Your task to perform on an android device: check the backup settings in the google photos Image 0: 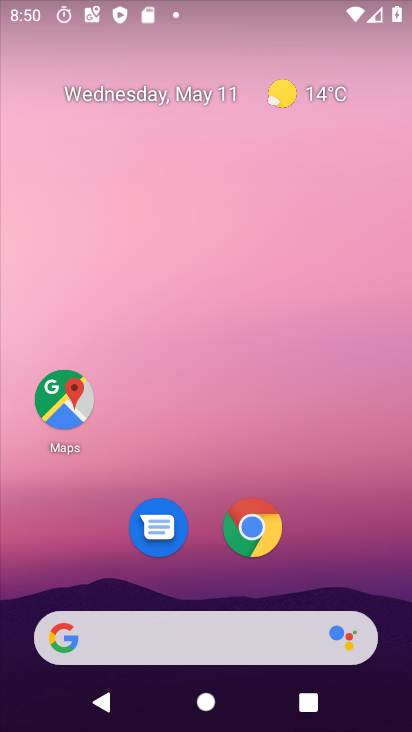
Step 0: drag from (250, 588) to (257, 128)
Your task to perform on an android device: check the backup settings in the google photos Image 1: 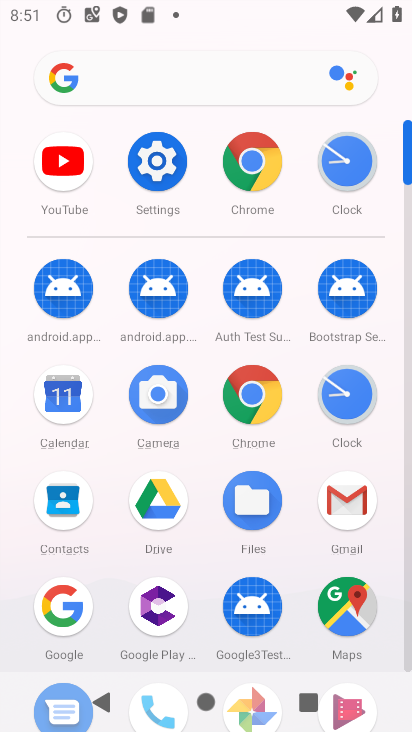
Step 1: drag from (205, 528) to (223, 237)
Your task to perform on an android device: check the backup settings in the google photos Image 2: 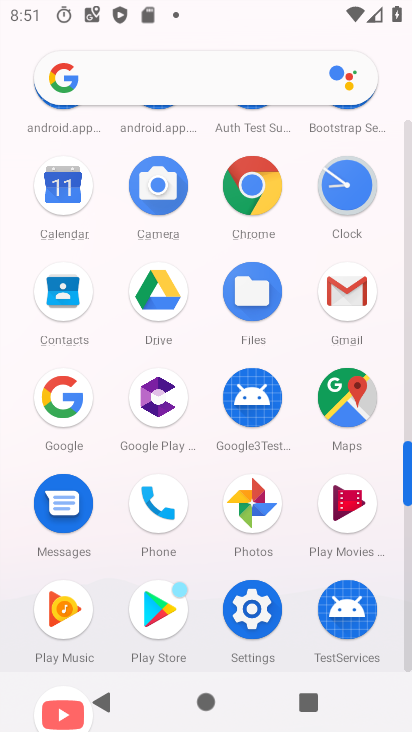
Step 2: drag from (270, 438) to (282, 290)
Your task to perform on an android device: check the backup settings in the google photos Image 3: 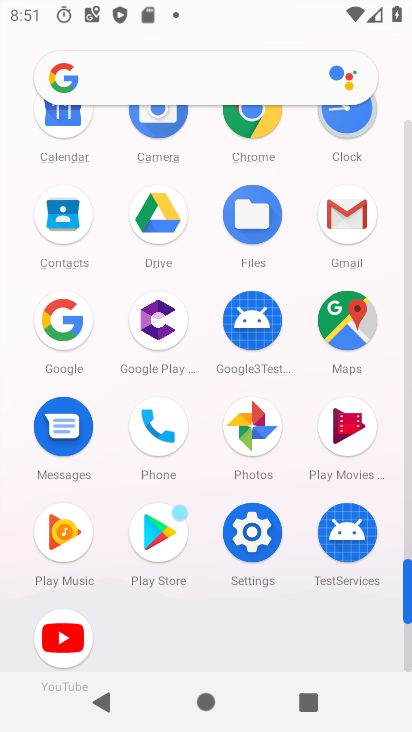
Step 3: click (263, 447)
Your task to perform on an android device: check the backup settings in the google photos Image 4: 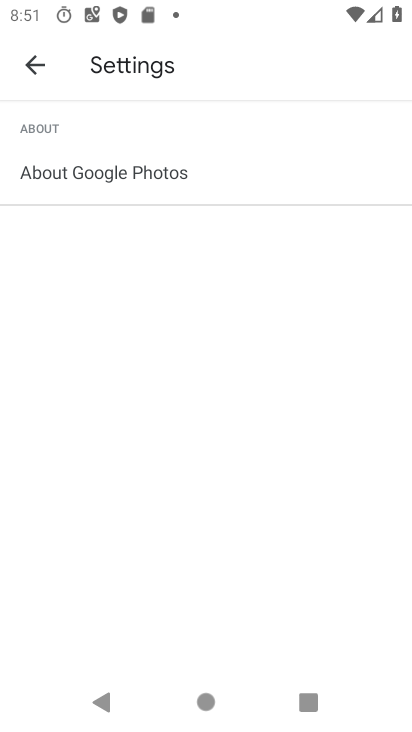
Step 4: click (26, 69)
Your task to perform on an android device: check the backup settings in the google photos Image 5: 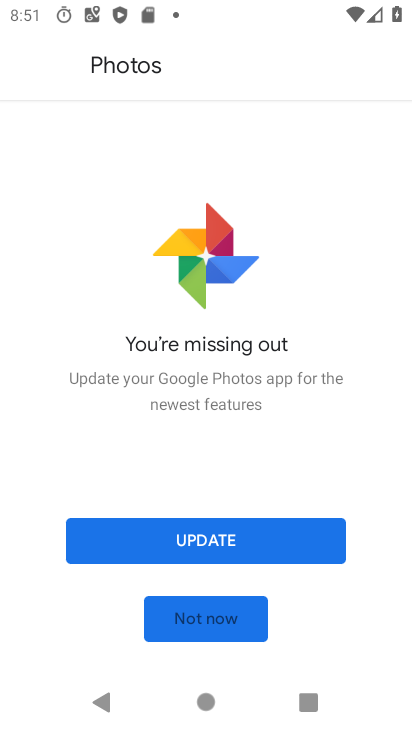
Step 5: task complete